Your task to perform on an android device: Toggle the flashlight Image 0: 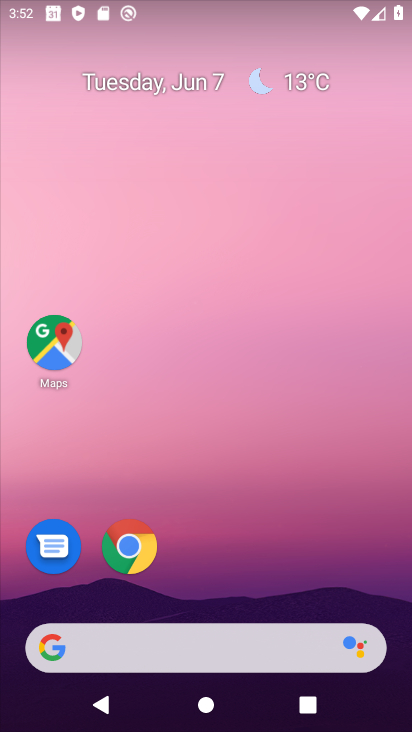
Step 0: drag from (157, 612) to (188, 124)
Your task to perform on an android device: Toggle the flashlight Image 1: 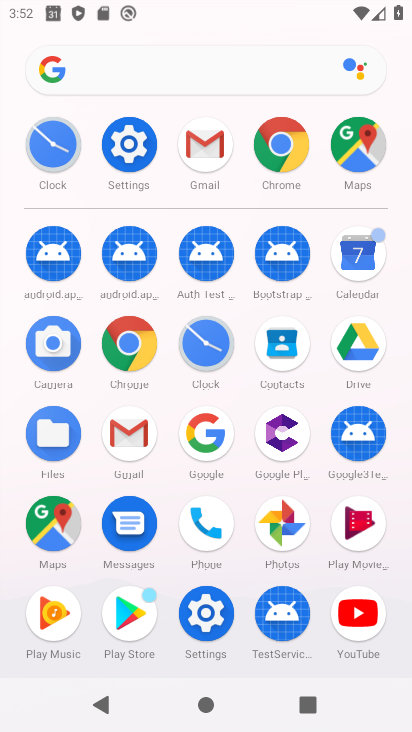
Step 1: click (133, 141)
Your task to perform on an android device: Toggle the flashlight Image 2: 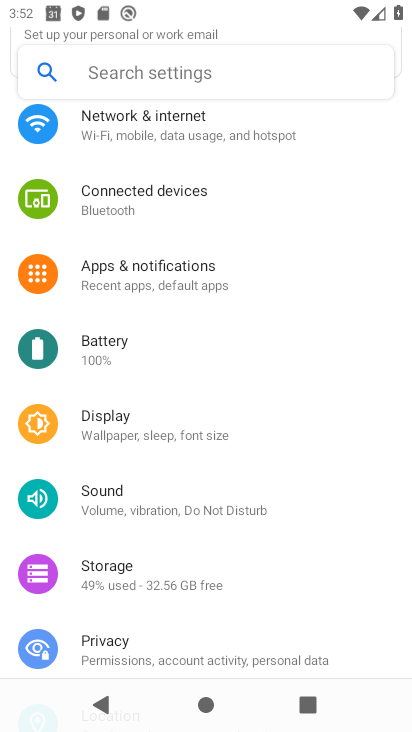
Step 2: task complete